Your task to perform on an android device: visit the assistant section in the google photos Image 0: 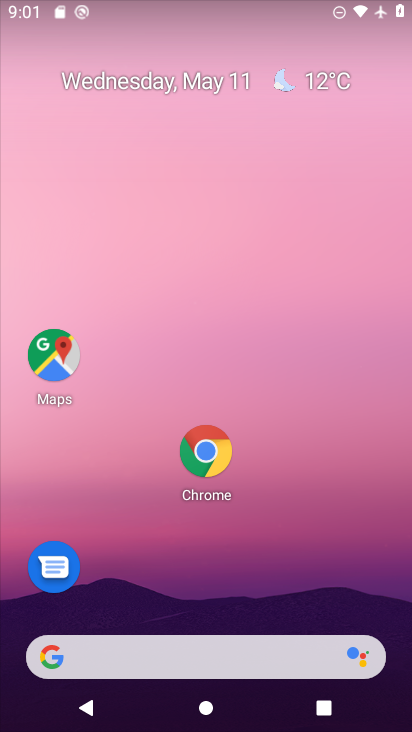
Step 0: drag from (139, 654) to (284, 191)
Your task to perform on an android device: visit the assistant section in the google photos Image 1: 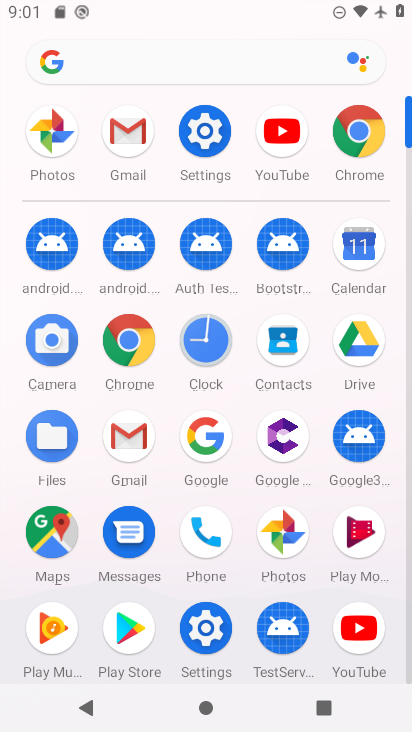
Step 1: click (292, 532)
Your task to perform on an android device: visit the assistant section in the google photos Image 2: 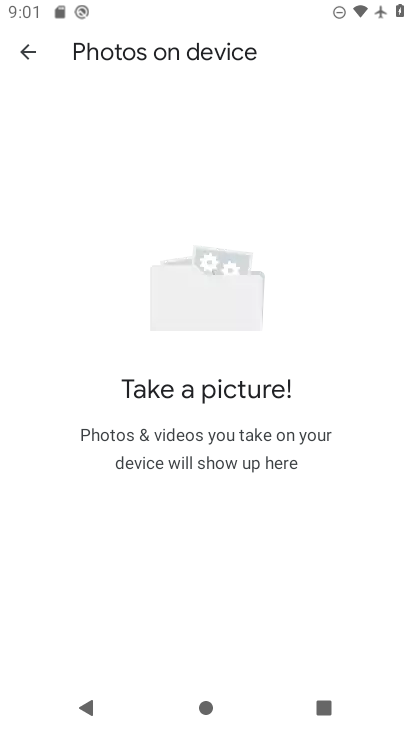
Step 2: click (26, 54)
Your task to perform on an android device: visit the assistant section in the google photos Image 3: 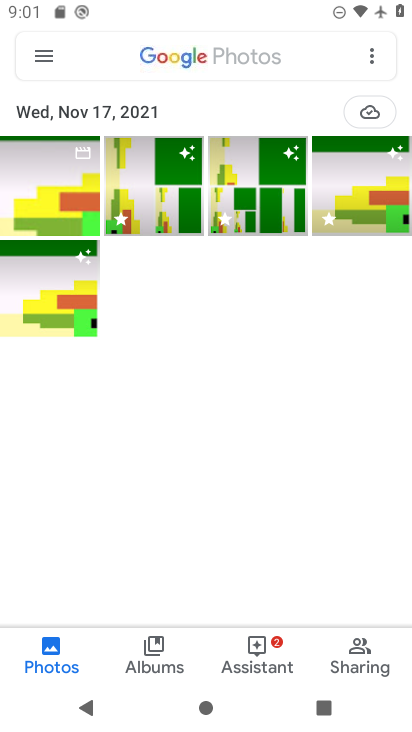
Step 3: click (265, 657)
Your task to perform on an android device: visit the assistant section in the google photos Image 4: 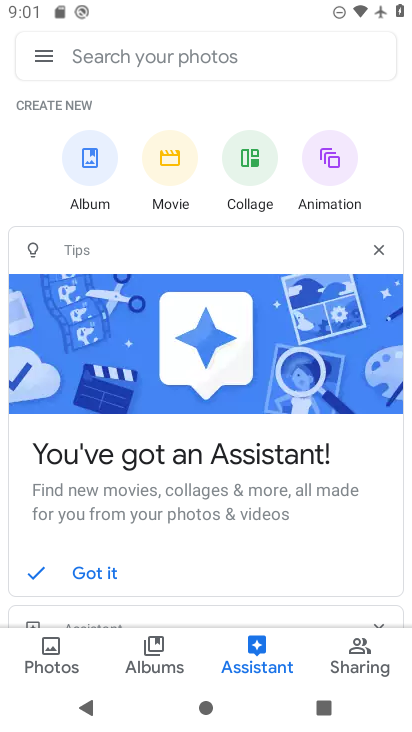
Step 4: task complete